Your task to perform on an android device: turn on sleep mode Image 0: 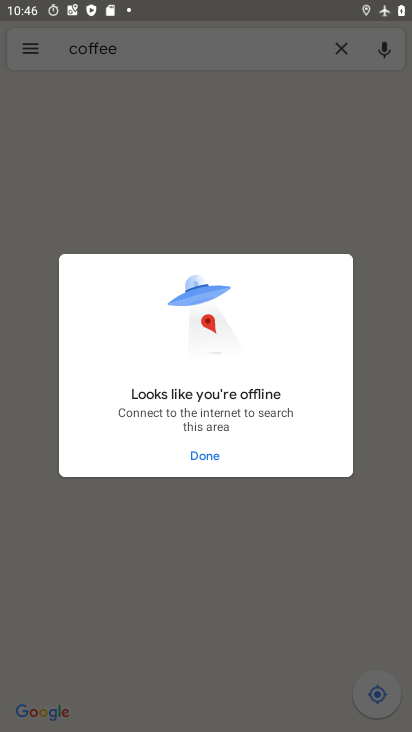
Step 0: press home button
Your task to perform on an android device: turn on sleep mode Image 1: 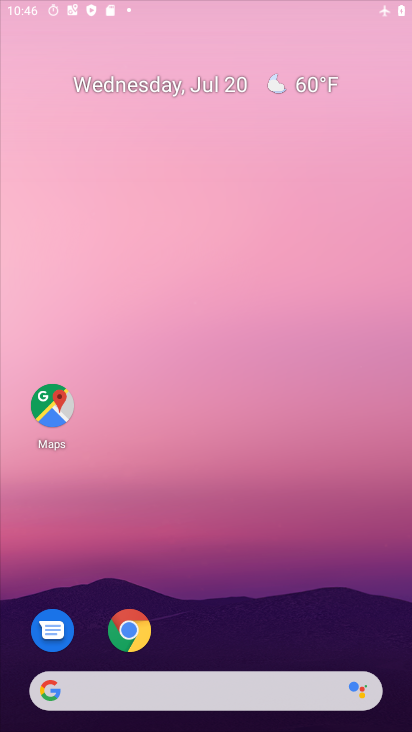
Step 1: drag from (221, 631) to (227, 80)
Your task to perform on an android device: turn on sleep mode Image 2: 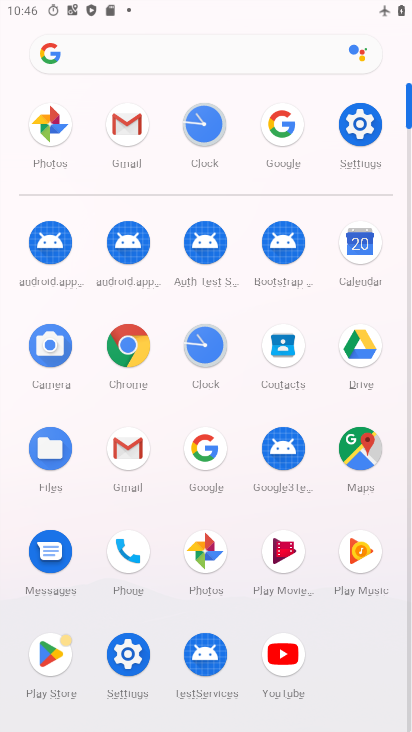
Step 2: click (356, 127)
Your task to perform on an android device: turn on sleep mode Image 3: 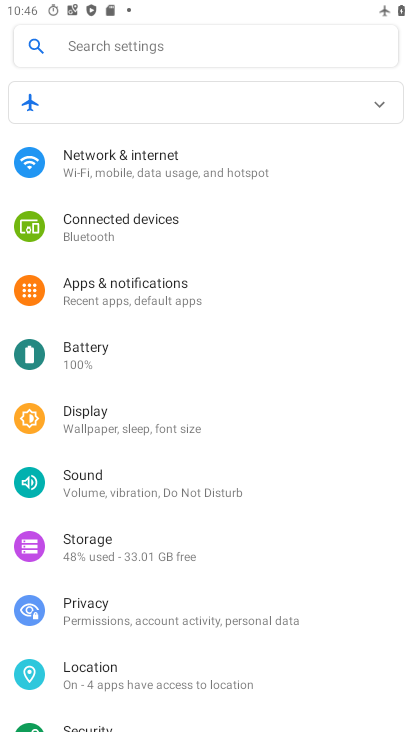
Step 3: click (114, 427)
Your task to perform on an android device: turn on sleep mode Image 4: 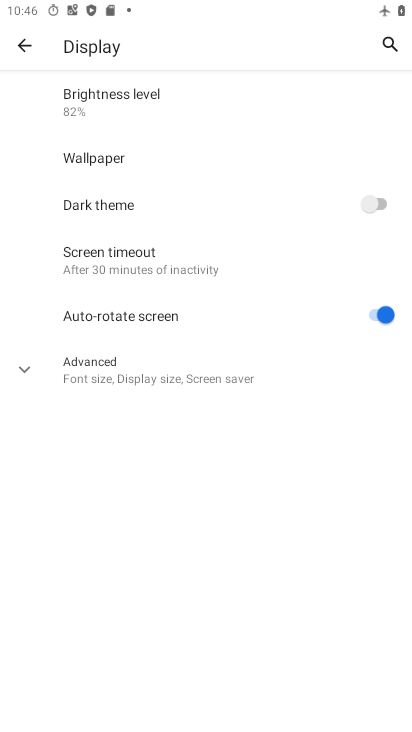
Step 4: click (131, 256)
Your task to perform on an android device: turn on sleep mode Image 5: 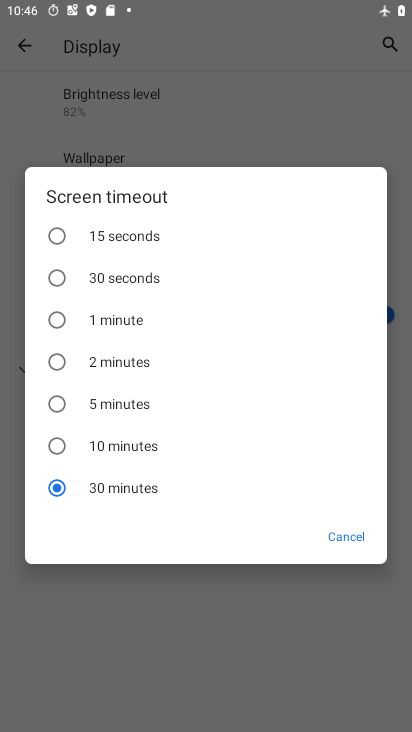
Step 5: task complete